Your task to perform on an android device: Open Android settings Image 0: 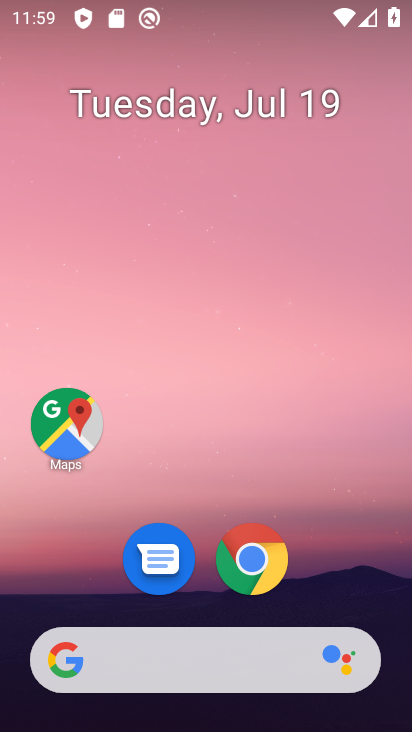
Step 0: drag from (384, 587) to (366, 171)
Your task to perform on an android device: Open Android settings Image 1: 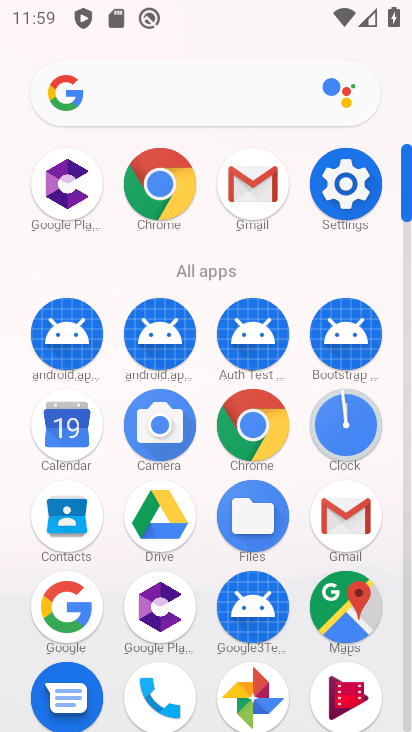
Step 1: click (366, 201)
Your task to perform on an android device: Open Android settings Image 2: 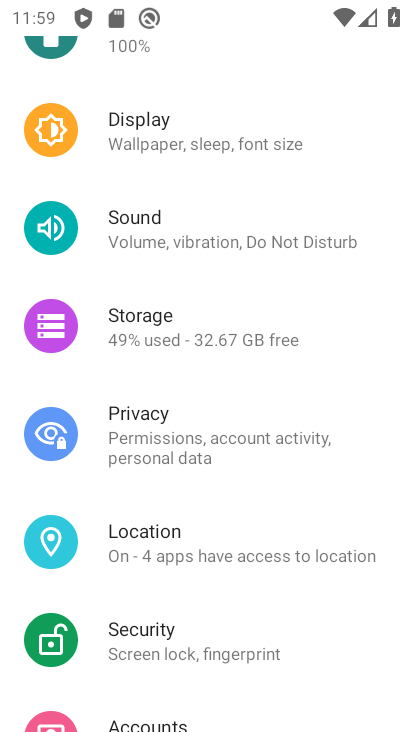
Step 2: drag from (365, 191) to (364, 307)
Your task to perform on an android device: Open Android settings Image 3: 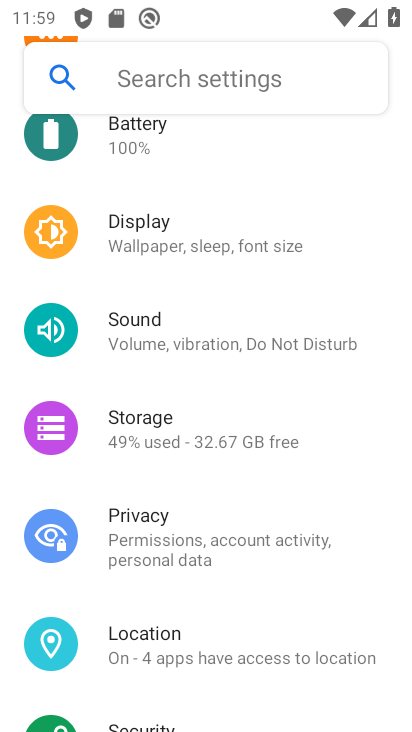
Step 3: drag from (367, 188) to (375, 324)
Your task to perform on an android device: Open Android settings Image 4: 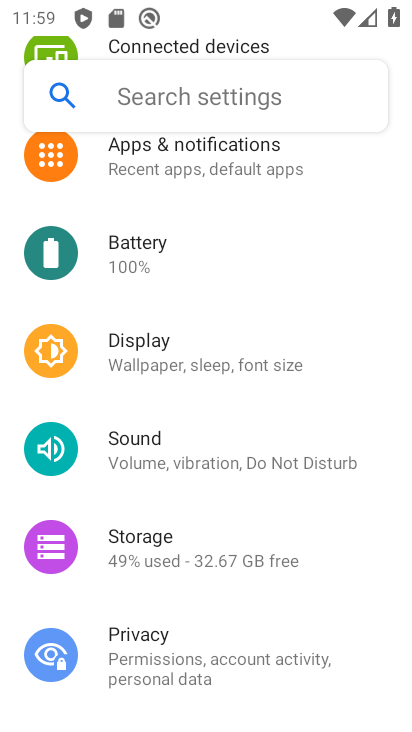
Step 4: drag from (358, 180) to (370, 372)
Your task to perform on an android device: Open Android settings Image 5: 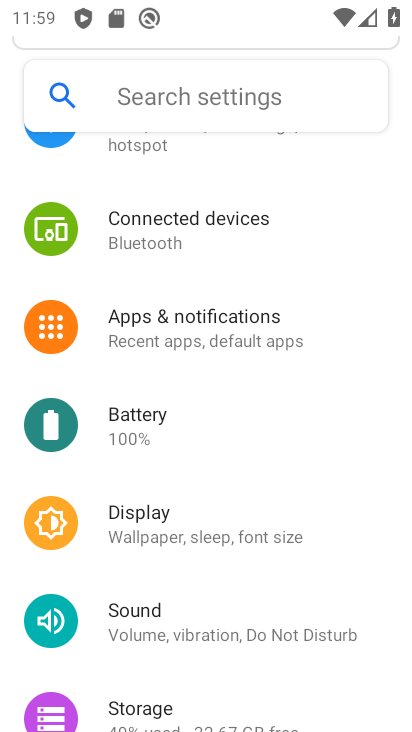
Step 5: drag from (349, 171) to (342, 357)
Your task to perform on an android device: Open Android settings Image 6: 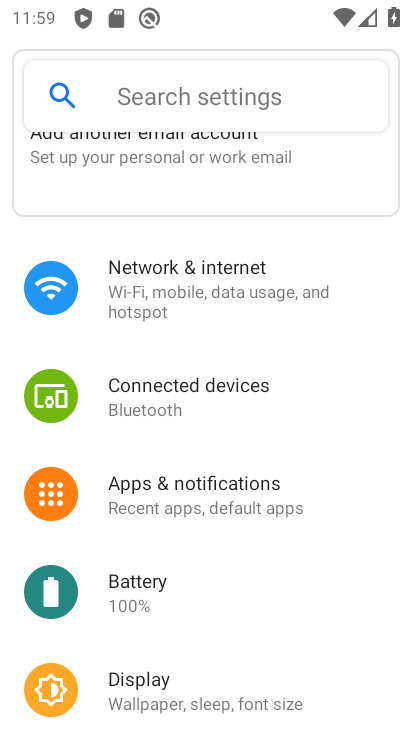
Step 6: drag from (341, 423) to (349, 317)
Your task to perform on an android device: Open Android settings Image 7: 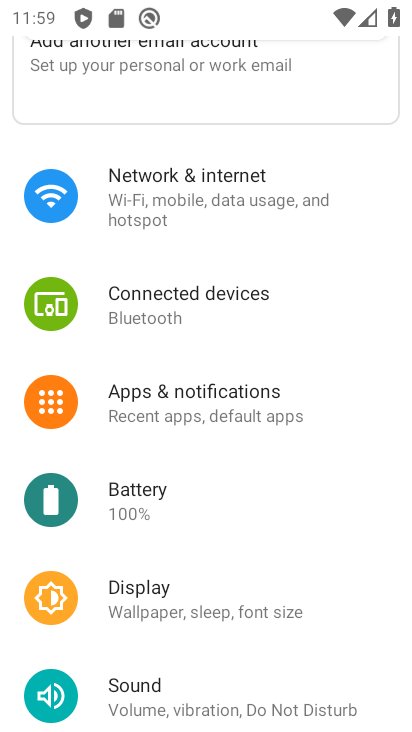
Step 7: drag from (338, 468) to (339, 318)
Your task to perform on an android device: Open Android settings Image 8: 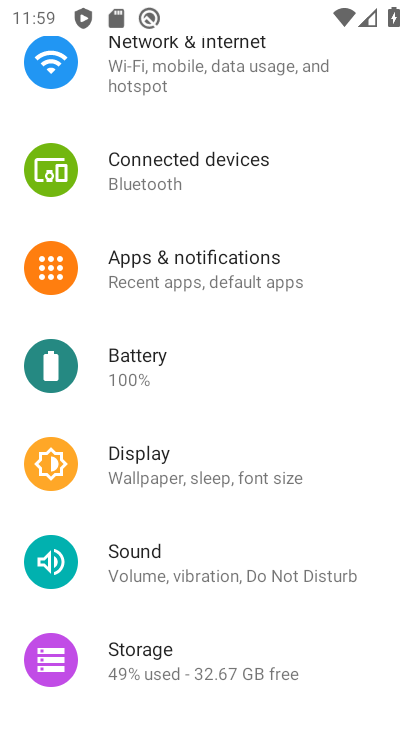
Step 8: drag from (341, 475) to (343, 300)
Your task to perform on an android device: Open Android settings Image 9: 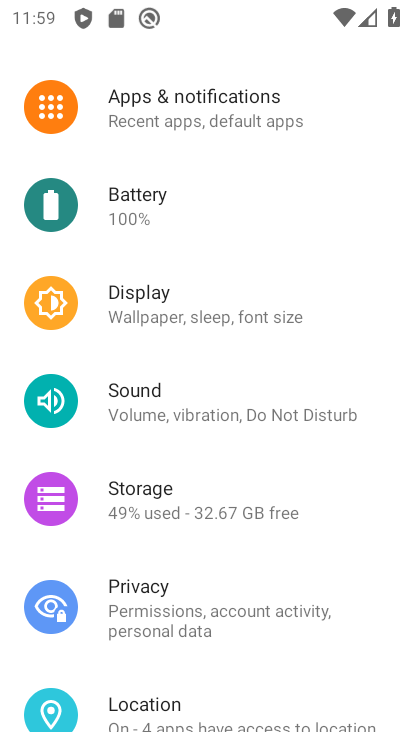
Step 9: drag from (340, 505) to (347, 312)
Your task to perform on an android device: Open Android settings Image 10: 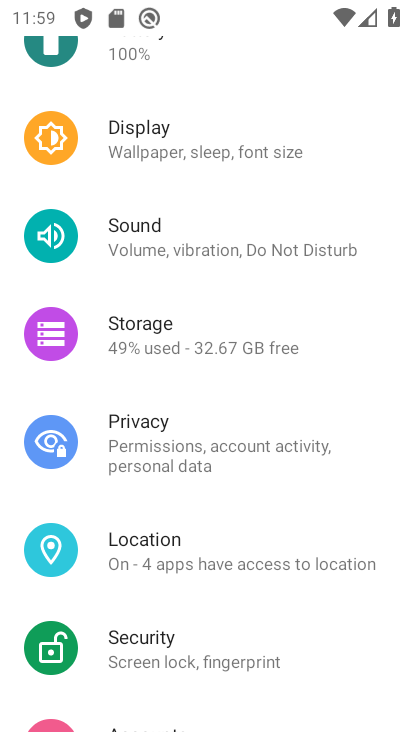
Step 10: drag from (346, 512) to (351, 340)
Your task to perform on an android device: Open Android settings Image 11: 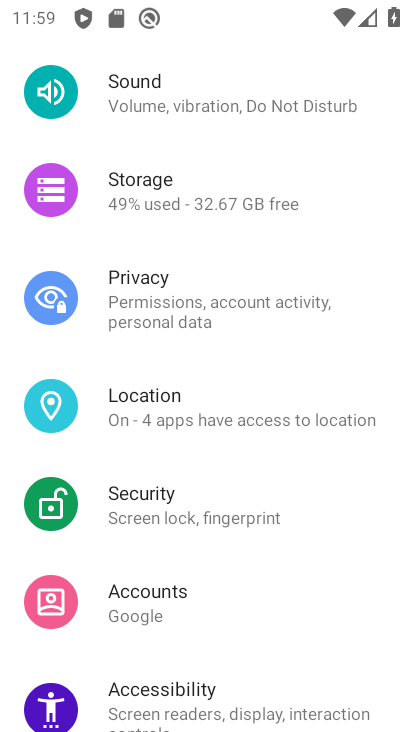
Step 11: drag from (356, 556) to (359, 364)
Your task to perform on an android device: Open Android settings Image 12: 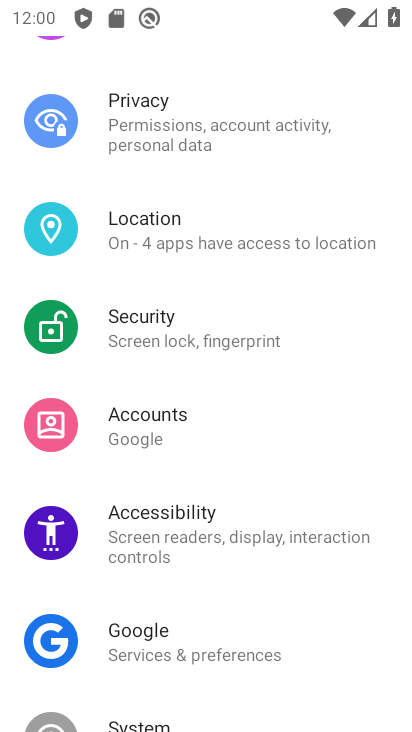
Step 12: drag from (335, 622) to (342, 456)
Your task to perform on an android device: Open Android settings Image 13: 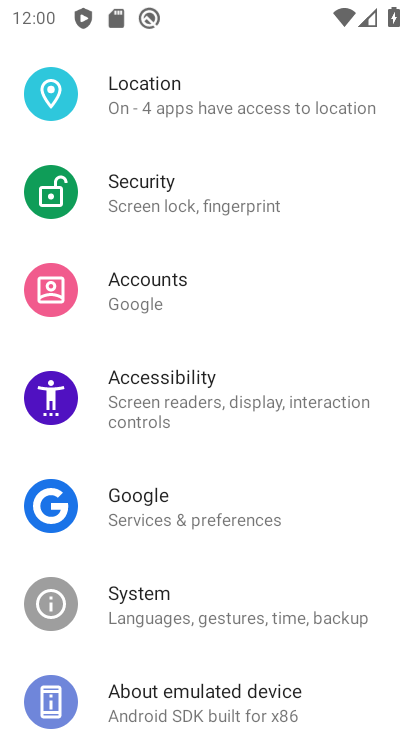
Step 13: click (332, 619)
Your task to perform on an android device: Open Android settings Image 14: 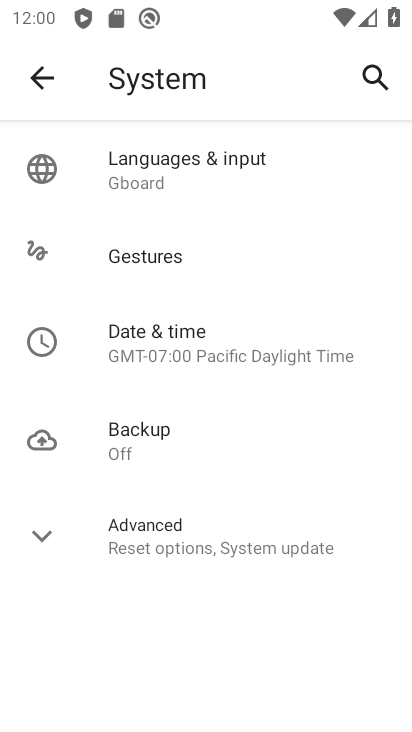
Step 14: click (306, 541)
Your task to perform on an android device: Open Android settings Image 15: 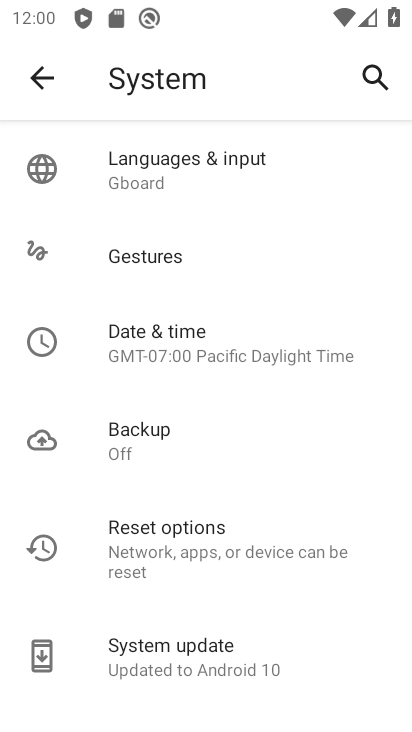
Step 15: task complete